Your task to perform on an android device: change the clock display to show seconds Image 0: 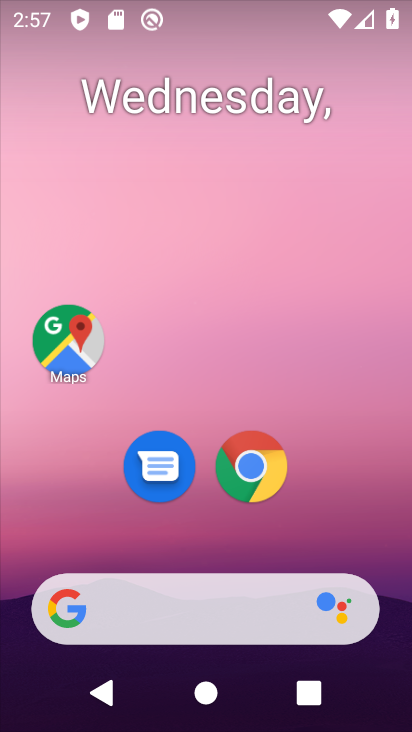
Step 0: drag from (163, 552) to (150, 7)
Your task to perform on an android device: change the clock display to show seconds Image 1: 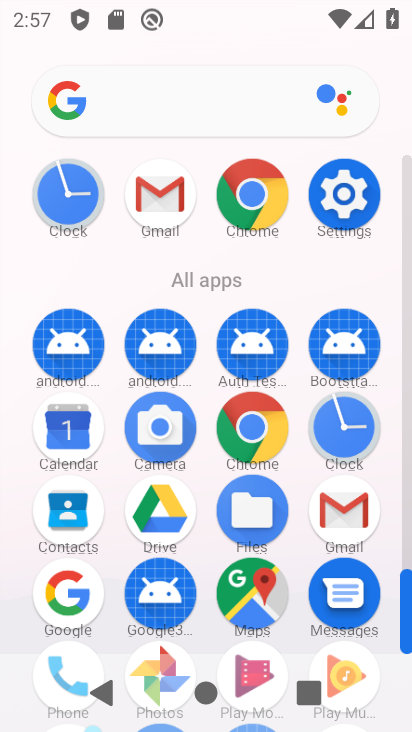
Step 1: click (355, 429)
Your task to perform on an android device: change the clock display to show seconds Image 2: 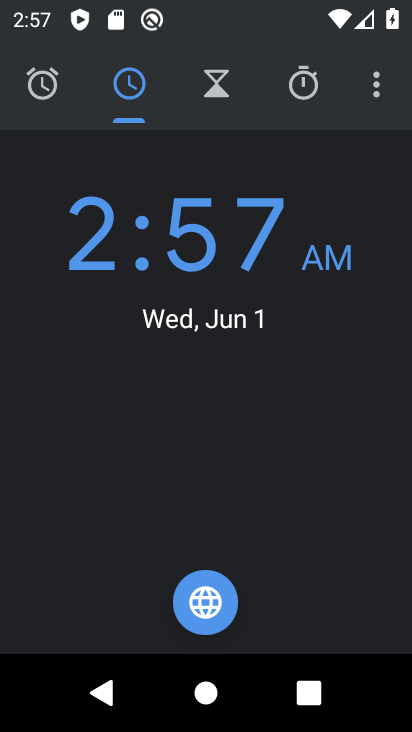
Step 2: click (360, 92)
Your task to perform on an android device: change the clock display to show seconds Image 3: 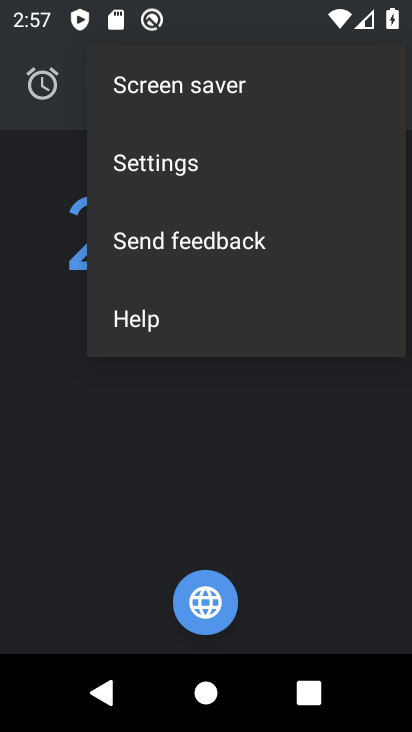
Step 3: click (189, 157)
Your task to perform on an android device: change the clock display to show seconds Image 4: 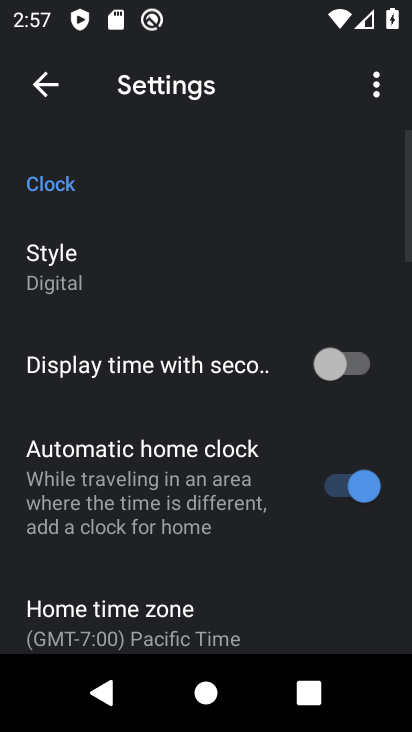
Step 4: click (345, 365)
Your task to perform on an android device: change the clock display to show seconds Image 5: 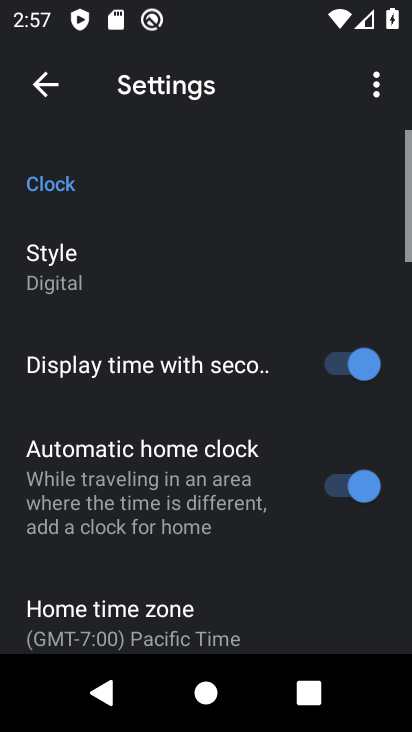
Step 5: task complete